Your task to perform on an android device: uninstall "AliExpress" Image 0: 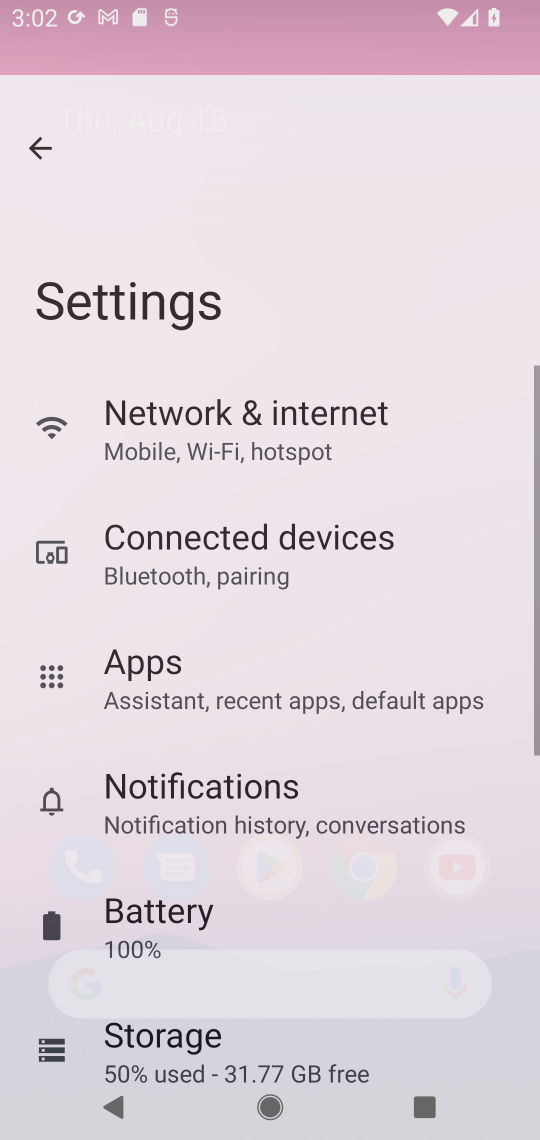
Step 0: press home button
Your task to perform on an android device: uninstall "AliExpress" Image 1: 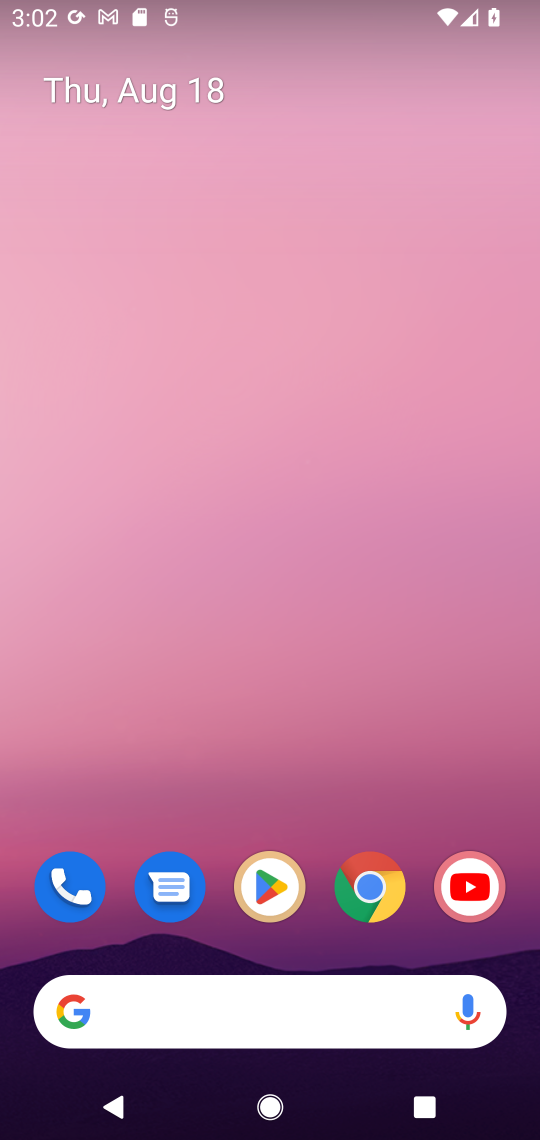
Step 1: click (263, 880)
Your task to perform on an android device: uninstall "AliExpress" Image 2: 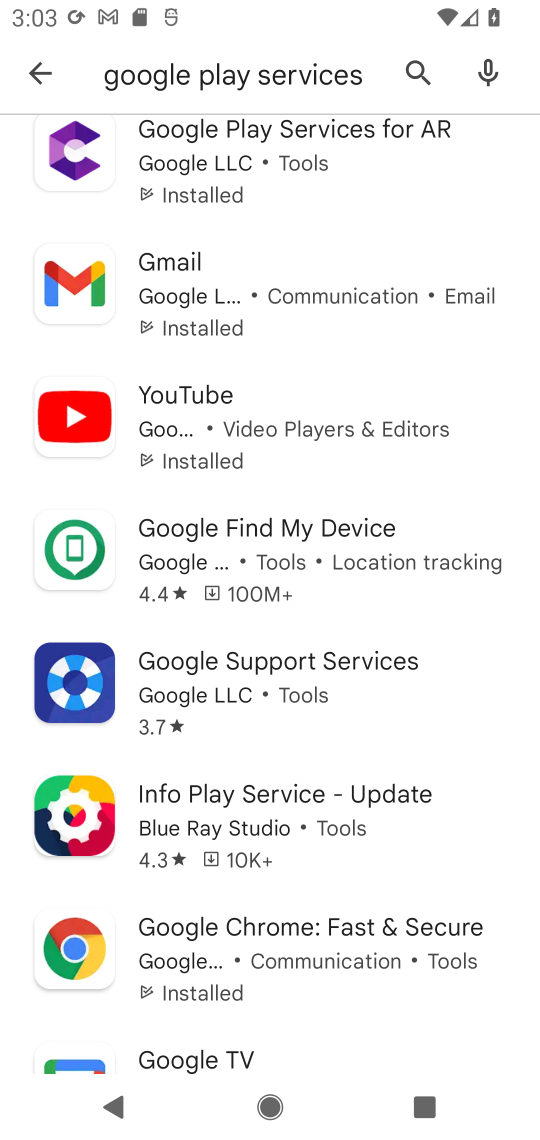
Step 2: click (413, 77)
Your task to perform on an android device: uninstall "AliExpress" Image 3: 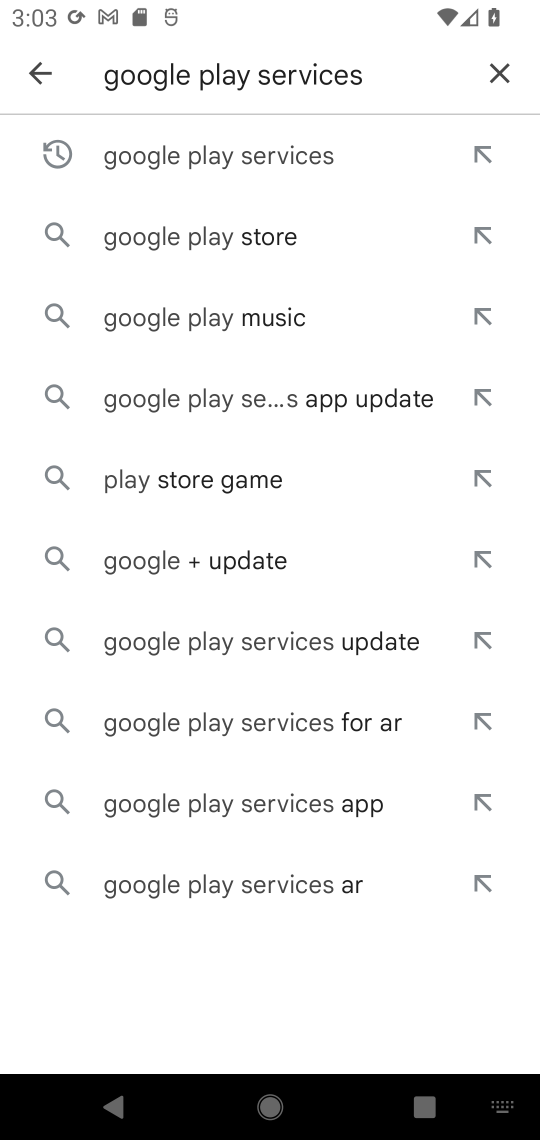
Step 3: click (494, 71)
Your task to perform on an android device: uninstall "AliExpress" Image 4: 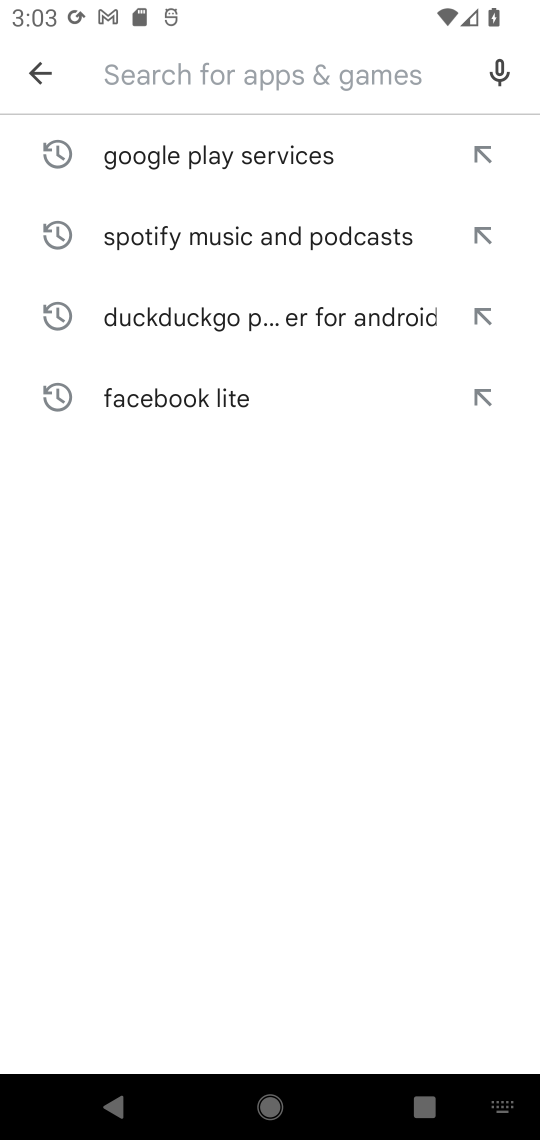
Step 4: type "AliExpress"
Your task to perform on an android device: uninstall "AliExpress" Image 5: 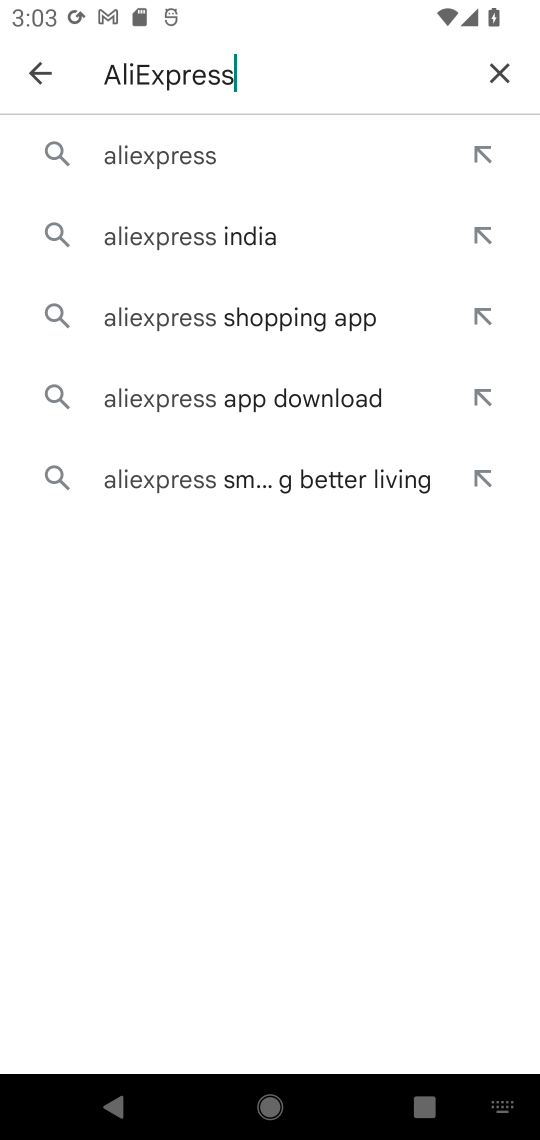
Step 5: click (131, 143)
Your task to perform on an android device: uninstall "AliExpress" Image 6: 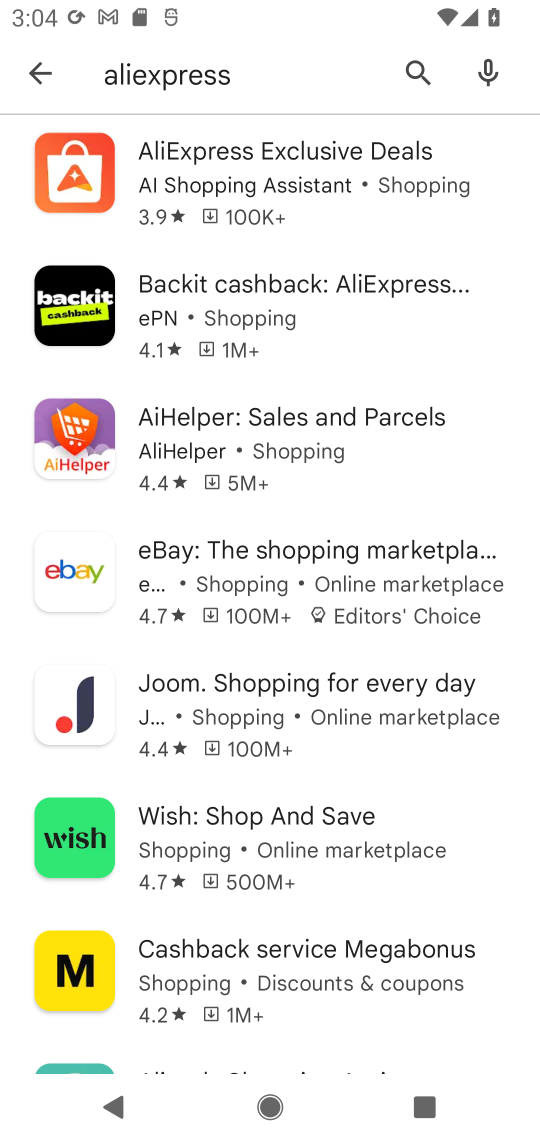
Step 6: click (213, 184)
Your task to perform on an android device: uninstall "AliExpress" Image 7: 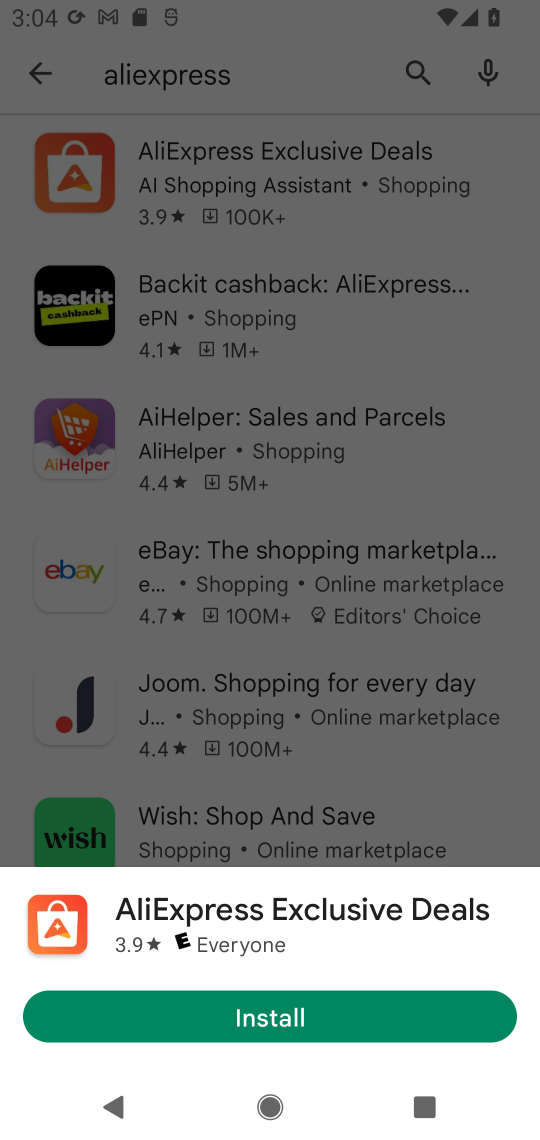
Step 7: task complete